Your task to perform on an android device: check google app version Image 0: 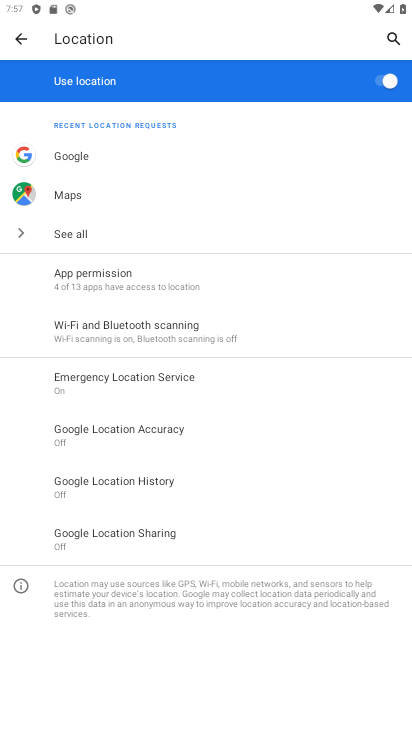
Step 0: press home button
Your task to perform on an android device: check google app version Image 1: 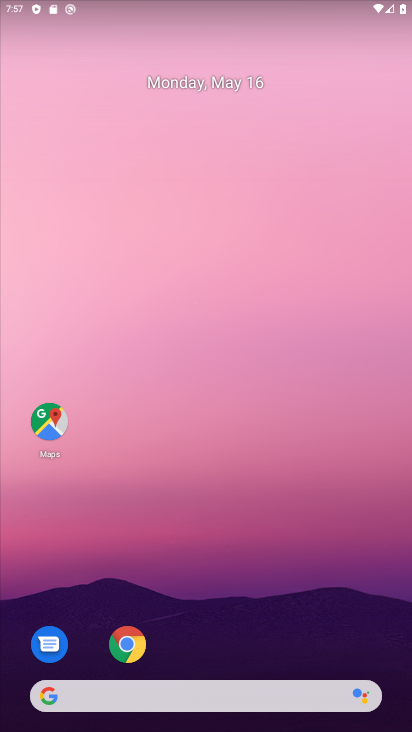
Step 1: drag from (195, 695) to (271, 25)
Your task to perform on an android device: check google app version Image 2: 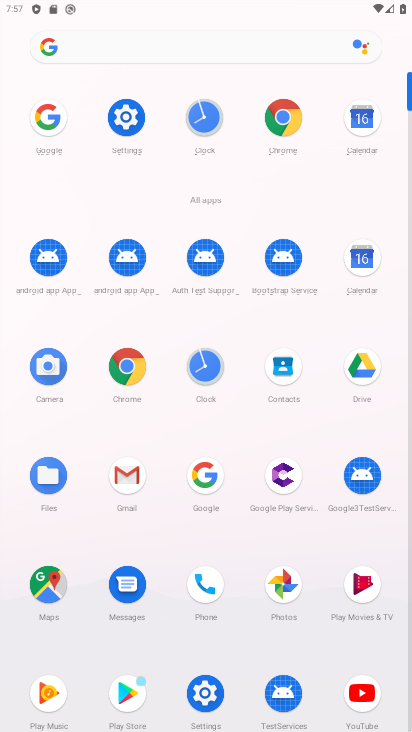
Step 2: click (208, 479)
Your task to perform on an android device: check google app version Image 3: 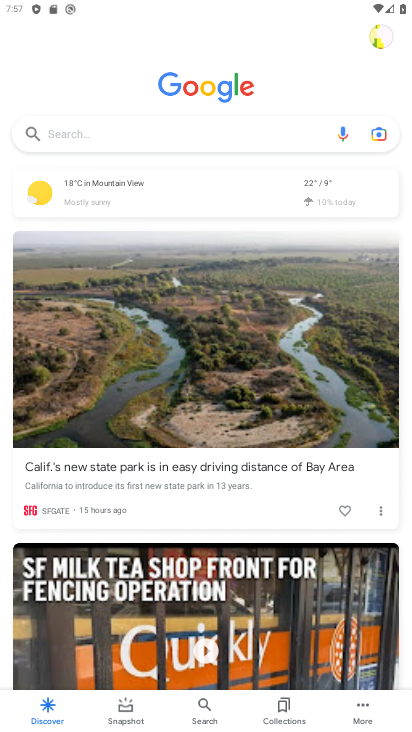
Step 3: press home button
Your task to perform on an android device: check google app version Image 4: 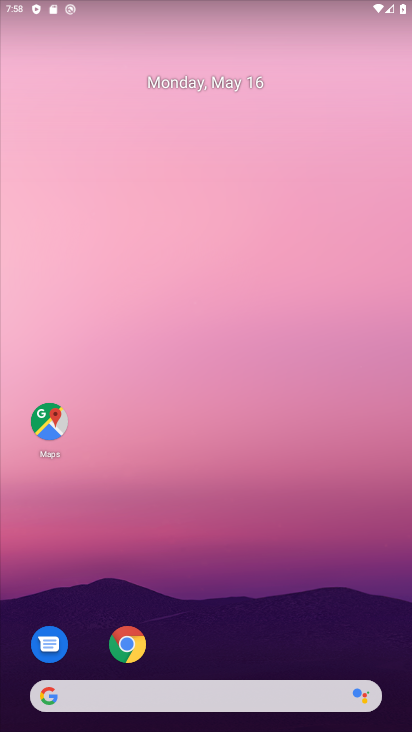
Step 4: drag from (104, 724) to (218, 33)
Your task to perform on an android device: check google app version Image 5: 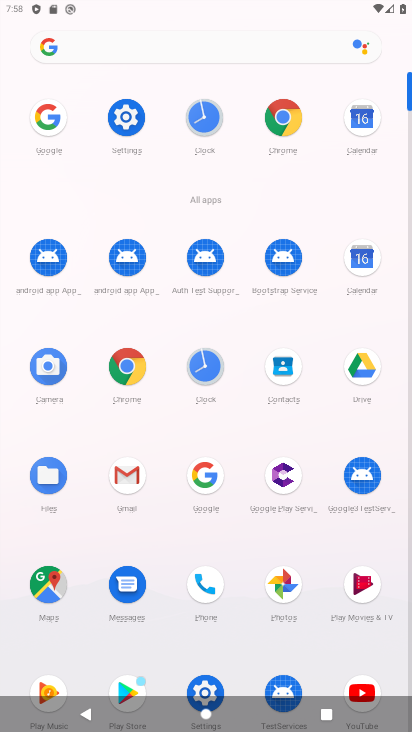
Step 5: click (208, 482)
Your task to perform on an android device: check google app version Image 6: 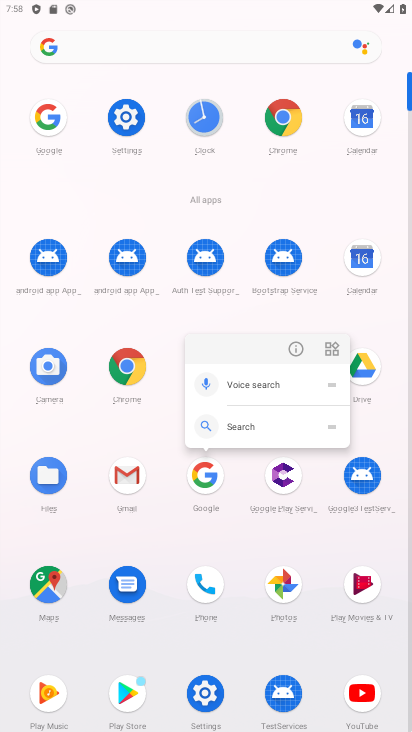
Step 6: click (294, 350)
Your task to perform on an android device: check google app version Image 7: 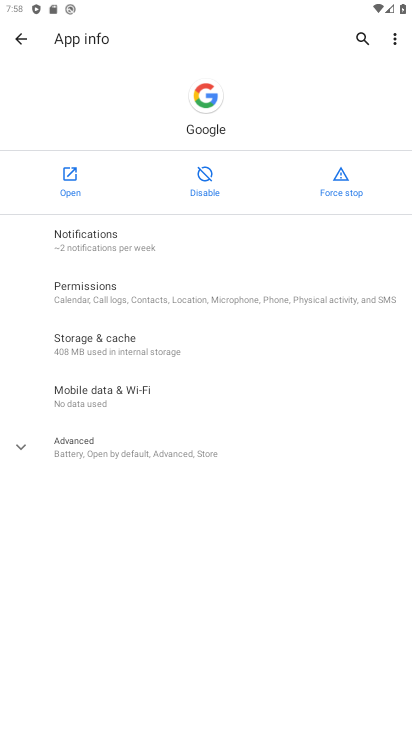
Step 7: click (144, 447)
Your task to perform on an android device: check google app version Image 8: 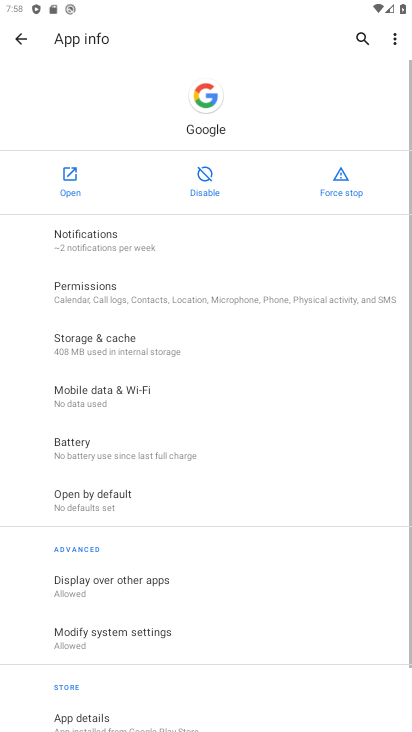
Step 8: task complete